Your task to perform on an android device: Go to Wikipedia Image 0: 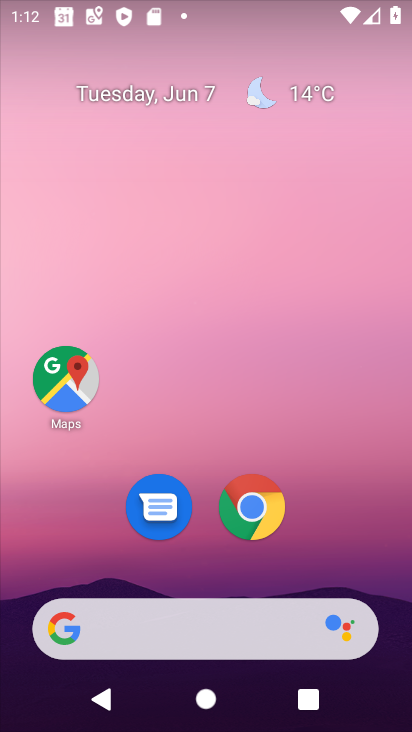
Step 0: click (253, 508)
Your task to perform on an android device: Go to Wikipedia Image 1: 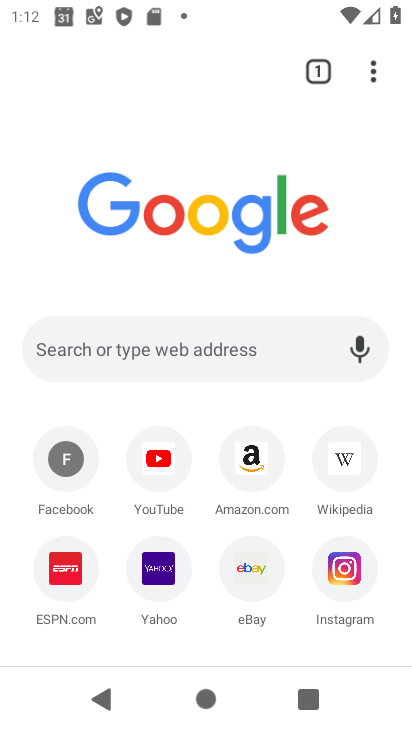
Step 1: click (349, 463)
Your task to perform on an android device: Go to Wikipedia Image 2: 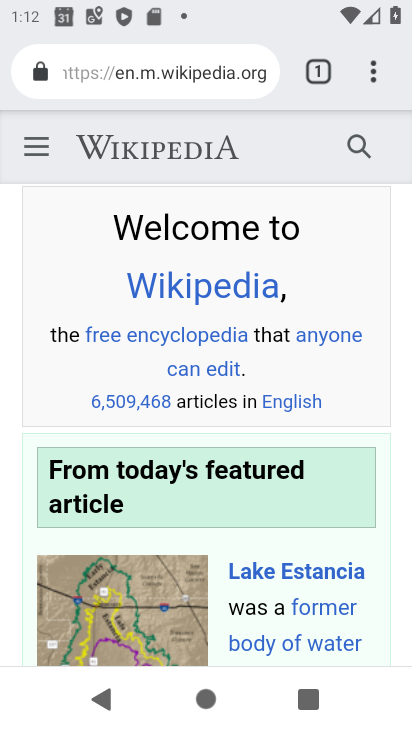
Step 2: task complete